Your task to perform on an android device: change alarm snooze length Image 0: 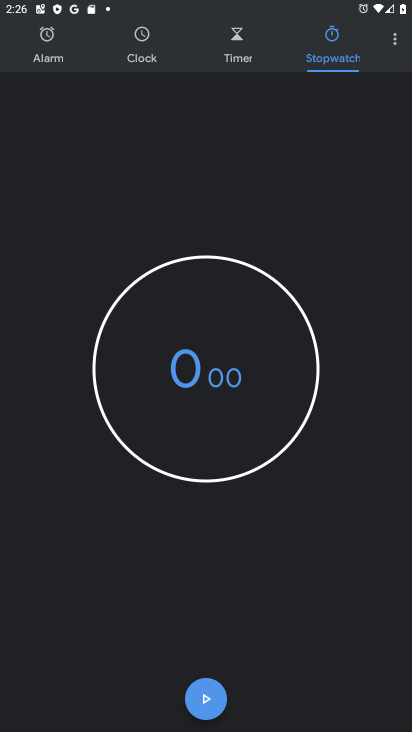
Step 0: press home button
Your task to perform on an android device: change alarm snooze length Image 1: 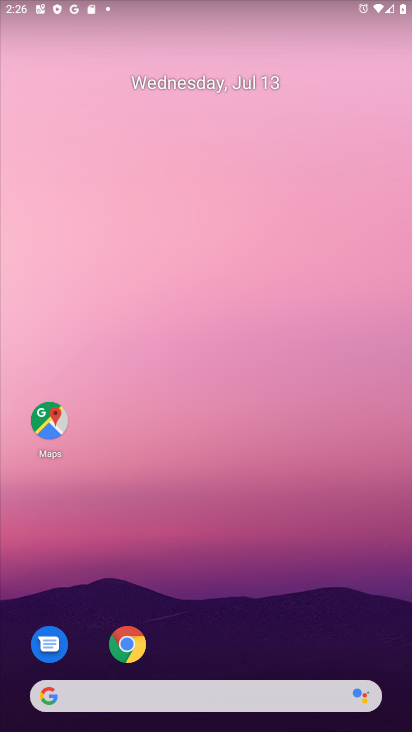
Step 1: drag from (211, 434) to (220, 110)
Your task to perform on an android device: change alarm snooze length Image 2: 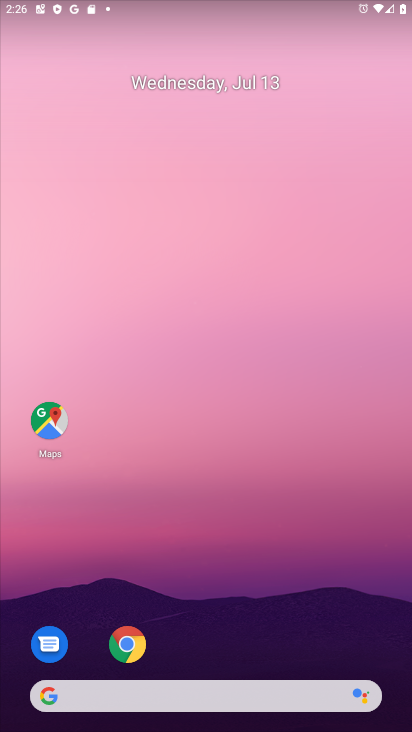
Step 2: drag from (199, 665) to (148, 11)
Your task to perform on an android device: change alarm snooze length Image 3: 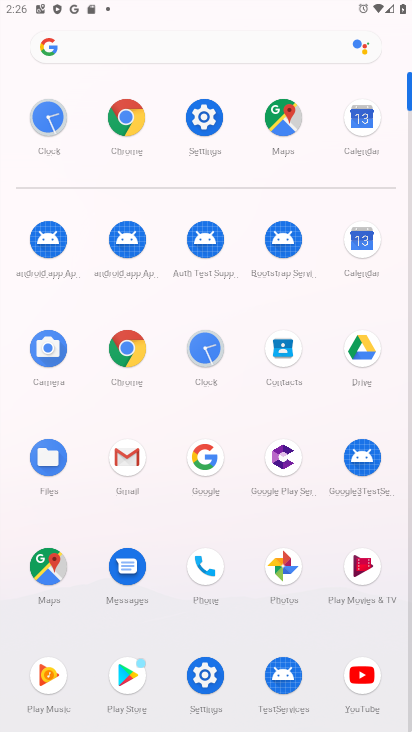
Step 3: click (204, 342)
Your task to perform on an android device: change alarm snooze length Image 4: 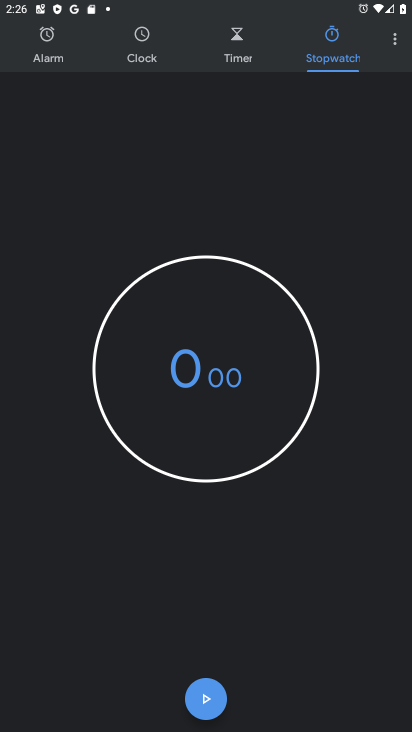
Step 4: click (389, 48)
Your task to perform on an android device: change alarm snooze length Image 5: 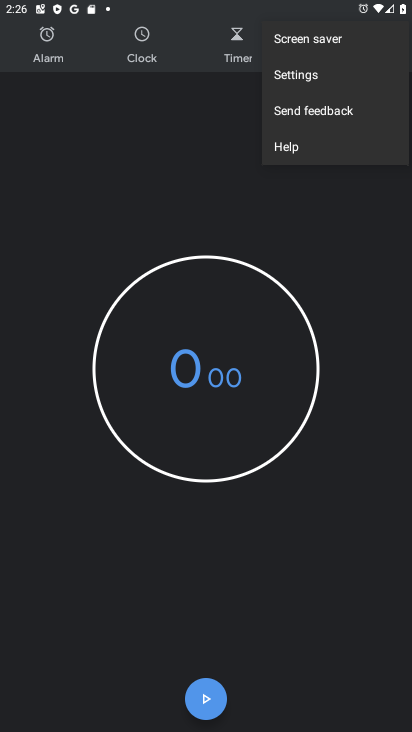
Step 5: click (313, 74)
Your task to perform on an android device: change alarm snooze length Image 6: 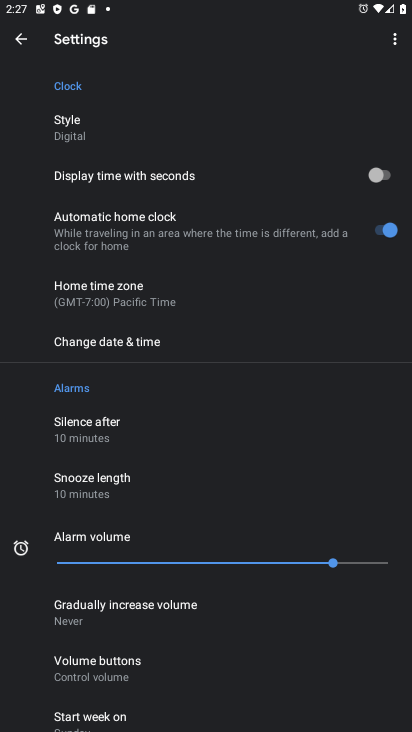
Step 6: click (109, 474)
Your task to perform on an android device: change alarm snooze length Image 7: 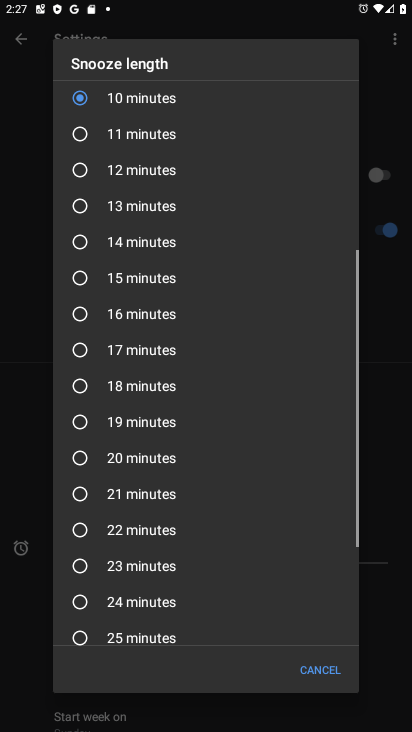
Step 7: click (130, 144)
Your task to perform on an android device: change alarm snooze length Image 8: 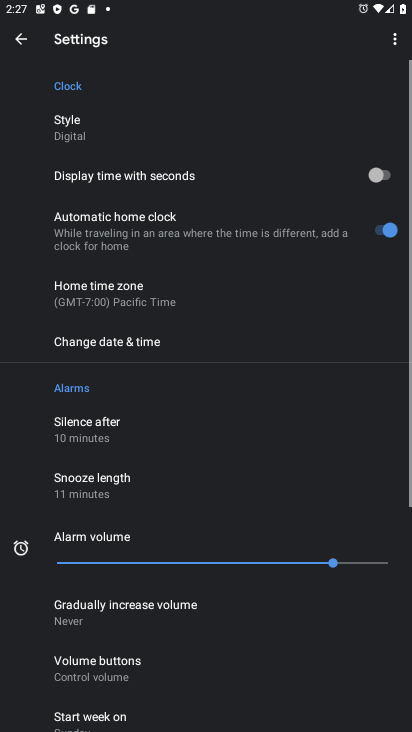
Step 8: task complete